Your task to perform on an android device: Open Chrome and go to settings Image 0: 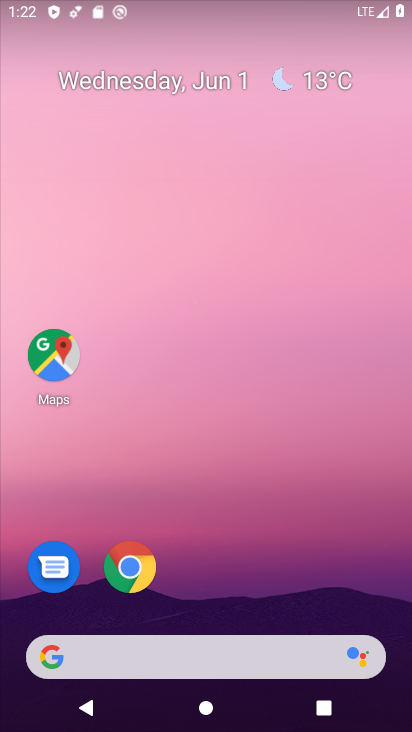
Step 0: click (122, 568)
Your task to perform on an android device: Open Chrome and go to settings Image 1: 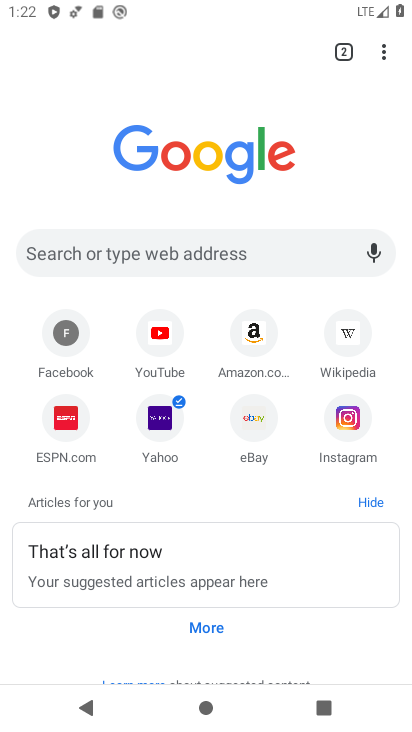
Step 1: click (381, 43)
Your task to perform on an android device: Open Chrome and go to settings Image 2: 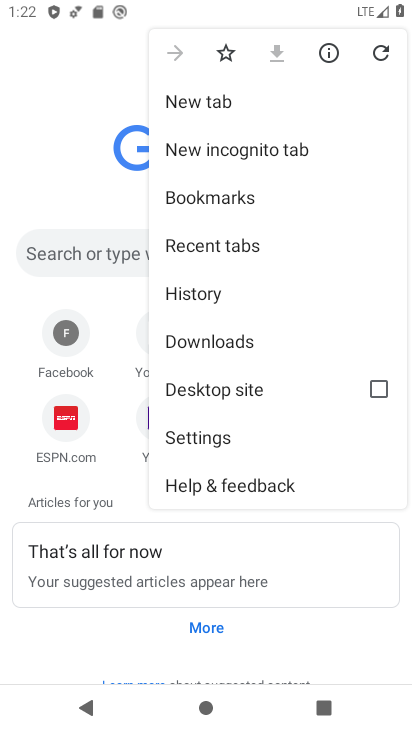
Step 2: click (210, 445)
Your task to perform on an android device: Open Chrome and go to settings Image 3: 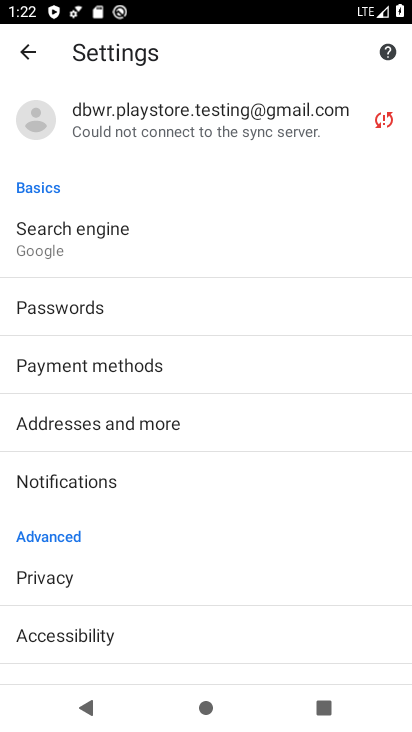
Step 3: task complete